Your task to perform on an android device: Open Youtube and go to "Your channel" Image 0: 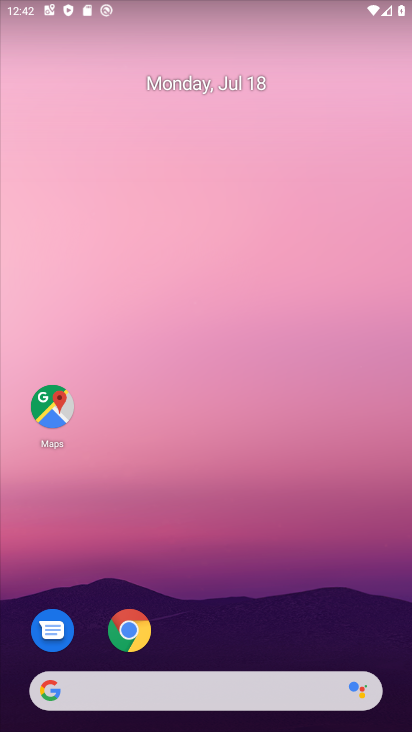
Step 0: drag from (346, 629) to (252, 13)
Your task to perform on an android device: Open Youtube and go to "Your channel" Image 1: 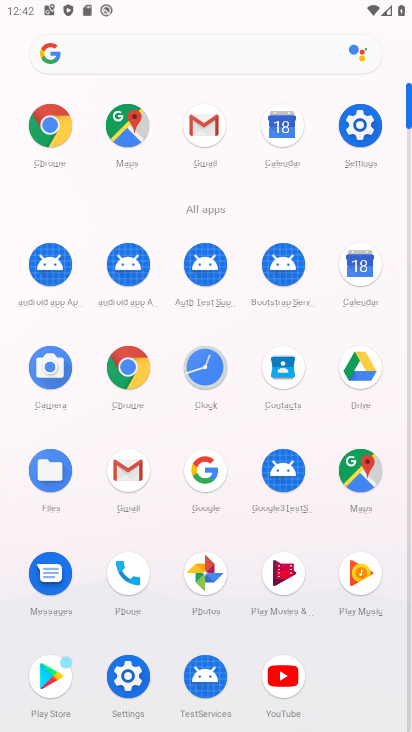
Step 1: click (287, 667)
Your task to perform on an android device: Open Youtube and go to "Your channel" Image 2: 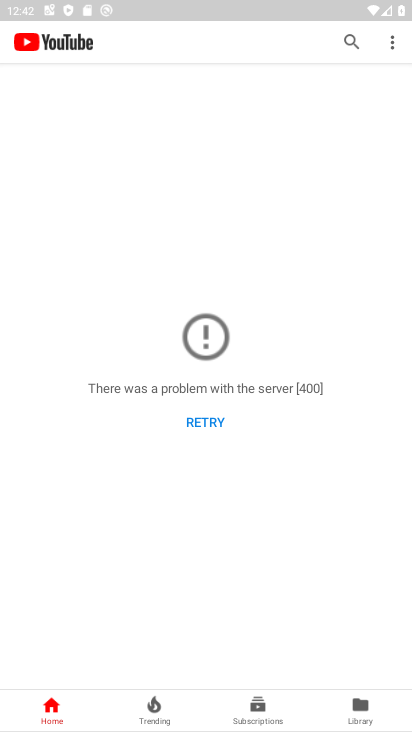
Step 2: click (405, 51)
Your task to perform on an android device: Open Youtube and go to "Your channel" Image 3: 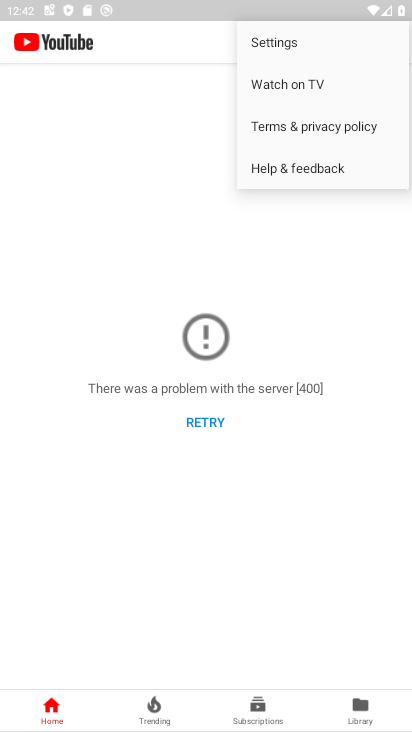
Step 3: task complete